Your task to perform on an android device: check android version Image 0: 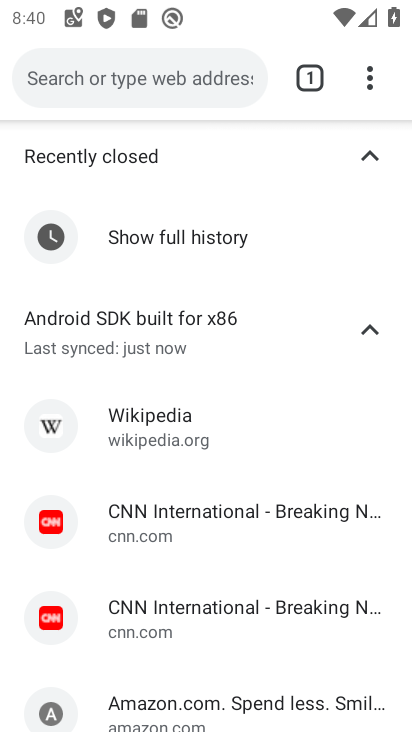
Step 0: press home button
Your task to perform on an android device: check android version Image 1: 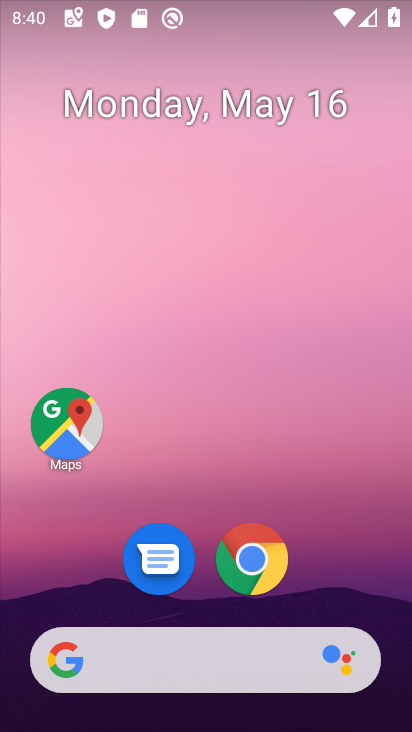
Step 1: drag from (313, 561) to (337, 50)
Your task to perform on an android device: check android version Image 2: 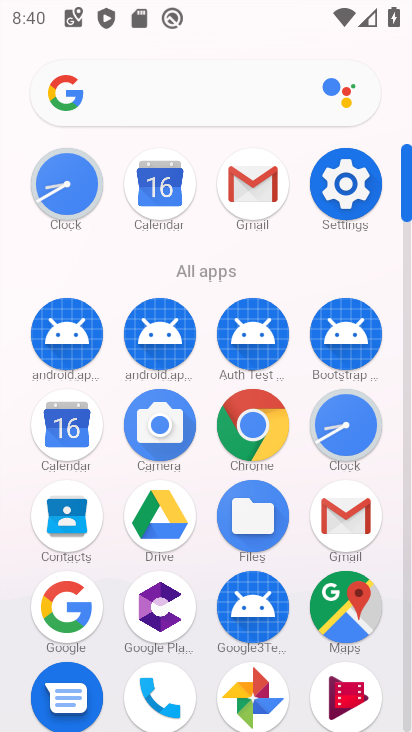
Step 2: click (345, 182)
Your task to perform on an android device: check android version Image 3: 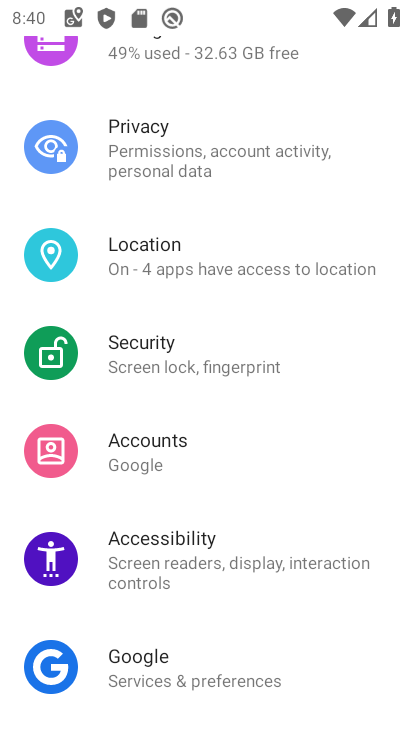
Step 3: drag from (139, 659) to (176, 378)
Your task to perform on an android device: check android version Image 4: 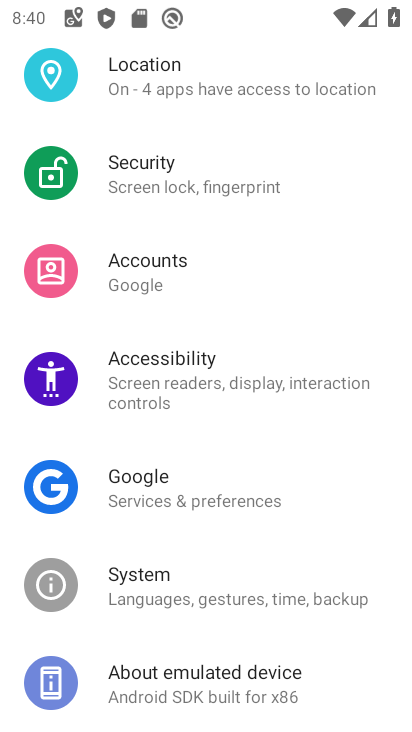
Step 4: click (177, 665)
Your task to perform on an android device: check android version Image 5: 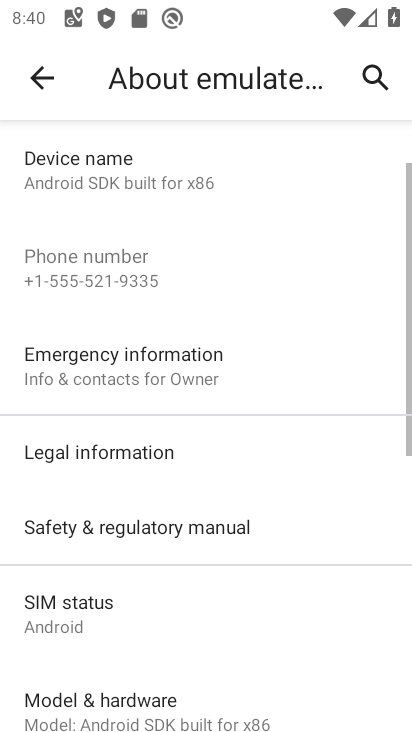
Step 5: drag from (167, 631) to (189, 465)
Your task to perform on an android device: check android version Image 6: 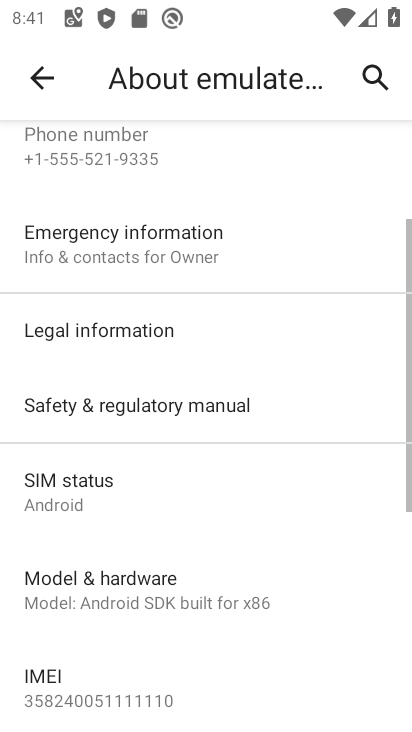
Step 6: drag from (168, 642) to (238, 343)
Your task to perform on an android device: check android version Image 7: 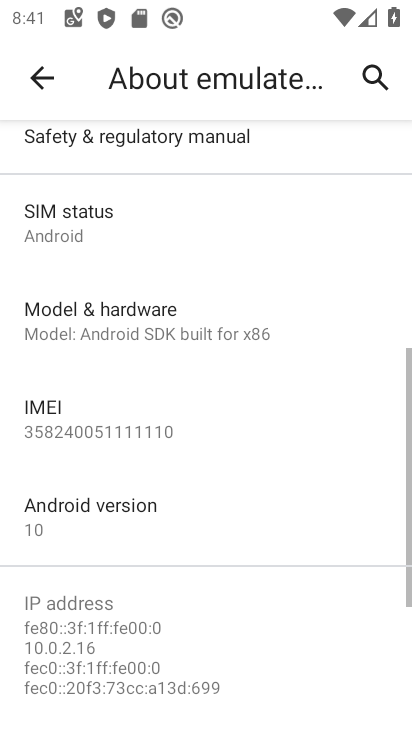
Step 7: click (121, 521)
Your task to perform on an android device: check android version Image 8: 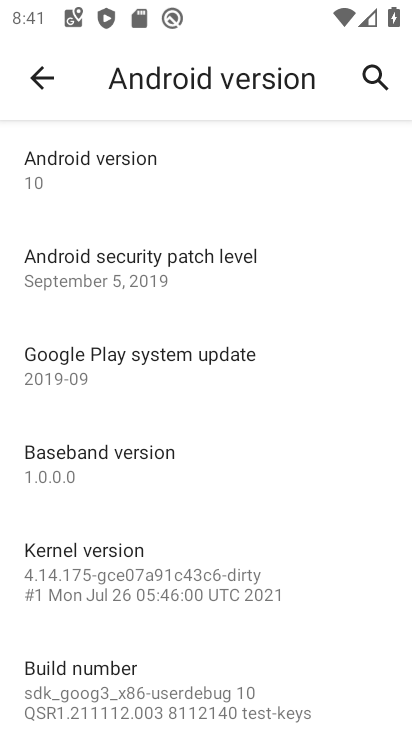
Step 8: drag from (177, 626) to (199, 676)
Your task to perform on an android device: check android version Image 9: 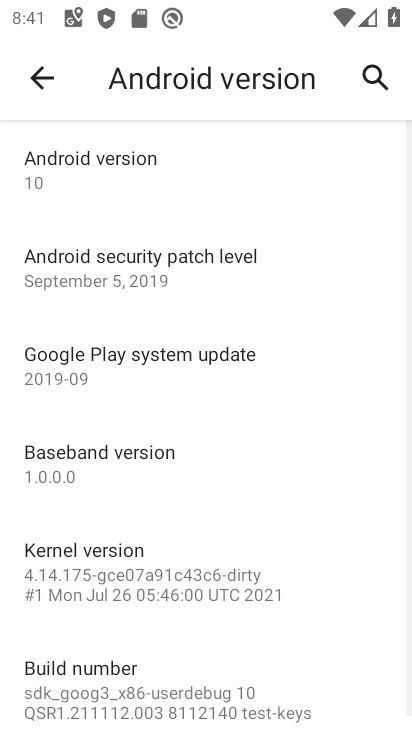
Step 9: click (156, 162)
Your task to perform on an android device: check android version Image 10: 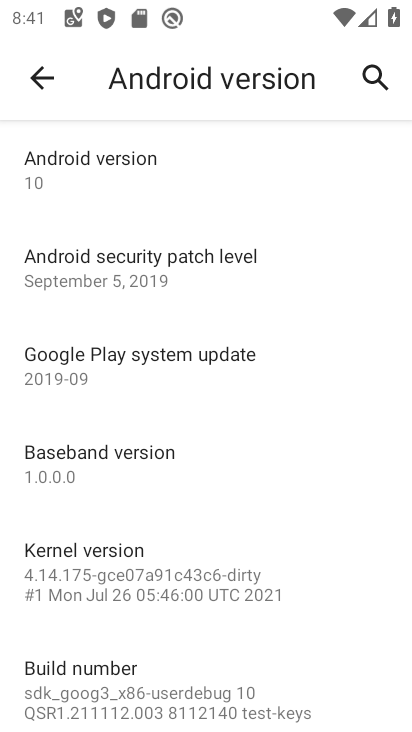
Step 10: task complete